Your task to perform on an android device: Search for vegetarian restaurants on Maps Image 0: 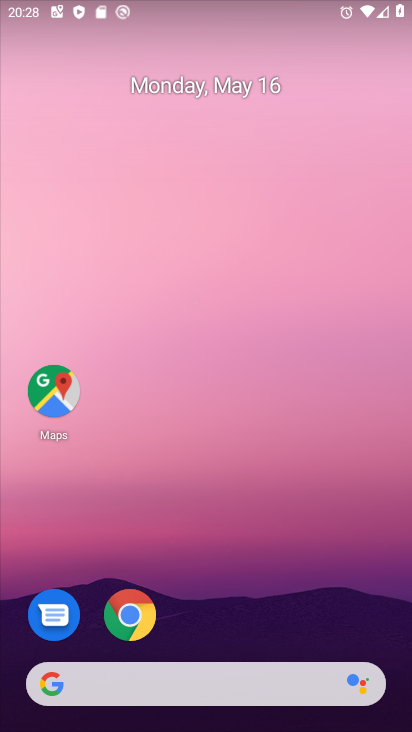
Step 0: click (41, 394)
Your task to perform on an android device: Search for vegetarian restaurants on Maps Image 1: 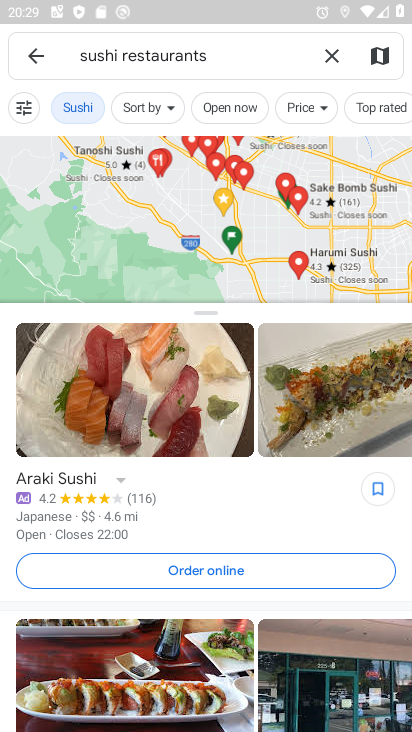
Step 1: click (329, 64)
Your task to perform on an android device: Search for vegetarian restaurants on Maps Image 2: 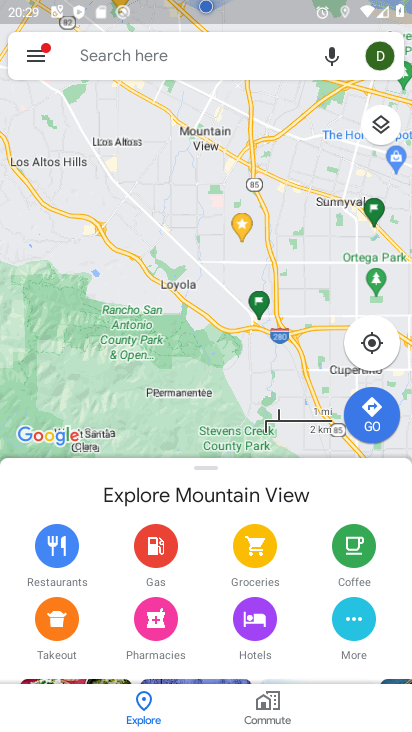
Step 2: click (234, 51)
Your task to perform on an android device: Search for vegetarian restaurants on Maps Image 3: 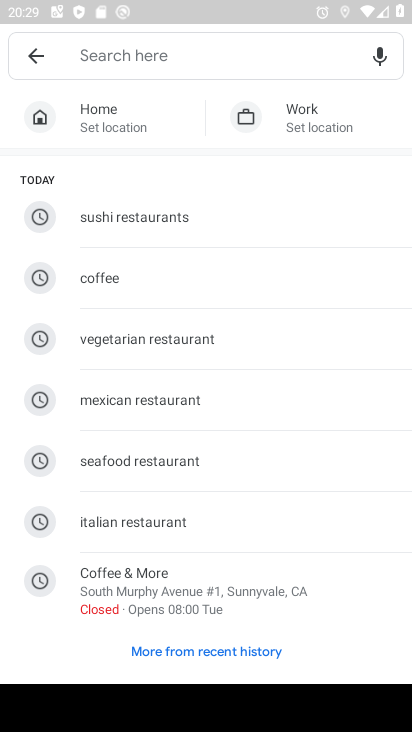
Step 3: click (207, 328)
Your task to perform on an android device: Search for vegetarian restaurants on Maps Image 4: 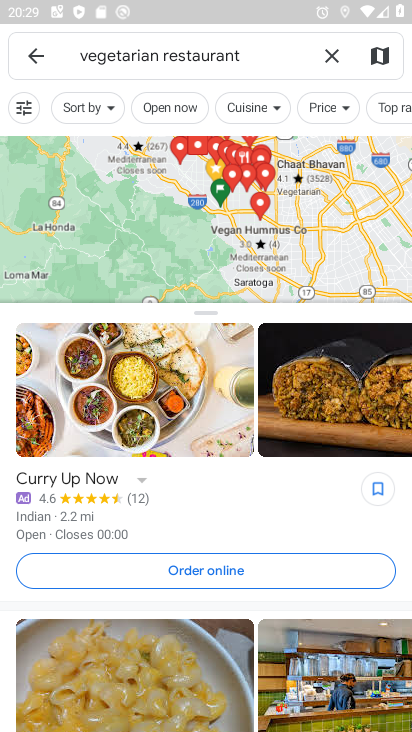
Step 4: task complete